Your task to perform on an android device: see sites visited before in the chrome app Image 0: 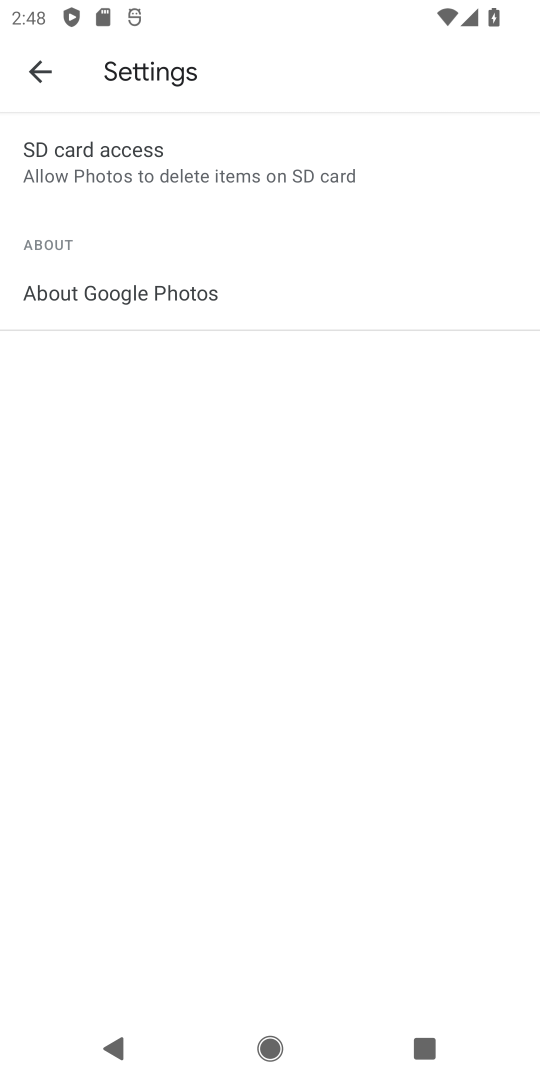
Step 0: press home button
Your task to perform on an android device: see sites visited before in the chrome app Image 1: 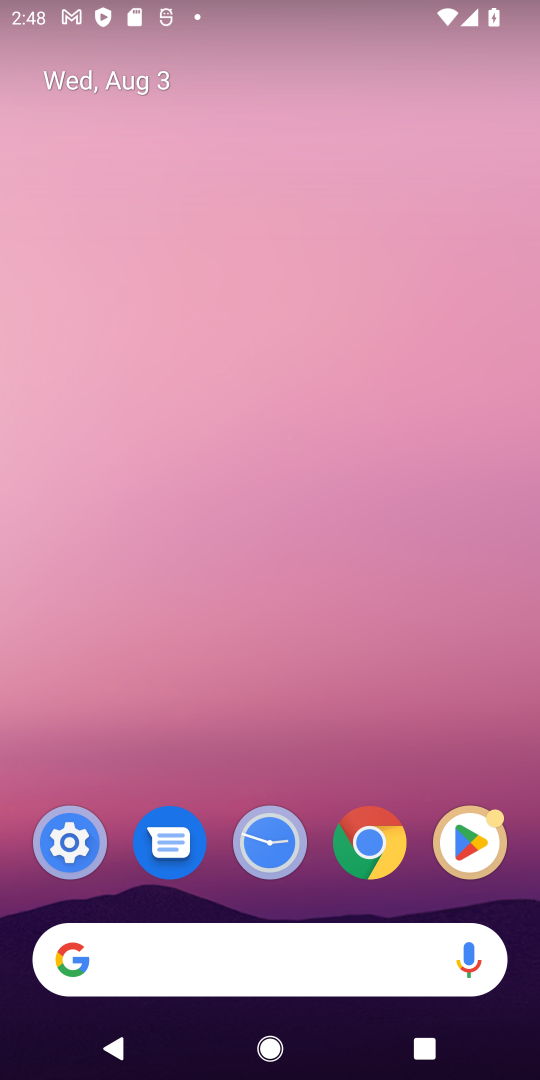
Step 1: click (373, 833)
Your task to perform on an android device: see sites visited before in the chrome app Image 2: 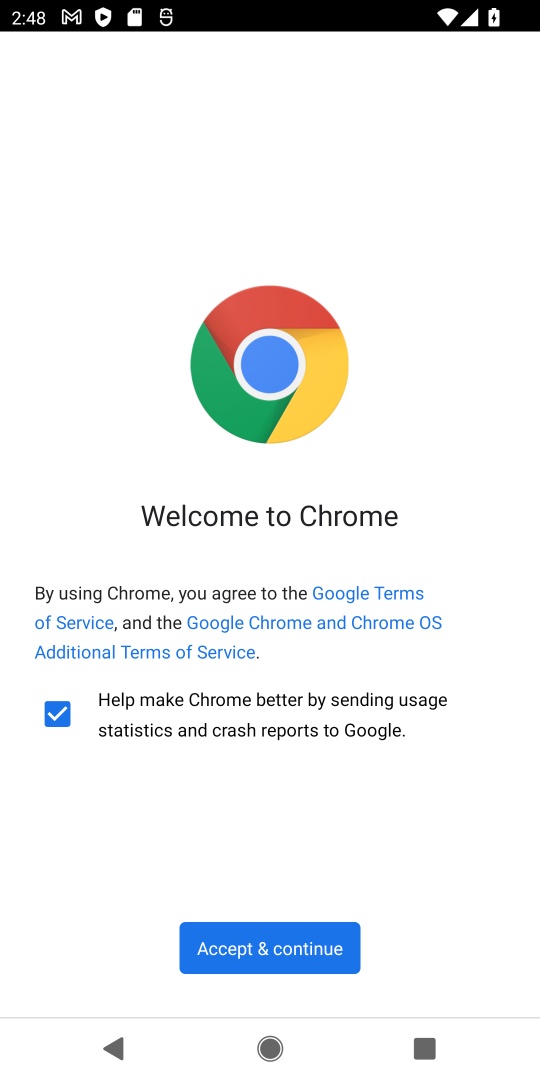
Step 2: click (309, 945)
Your task to perform on an android device: see sites visited before in the chrome app Image 3: 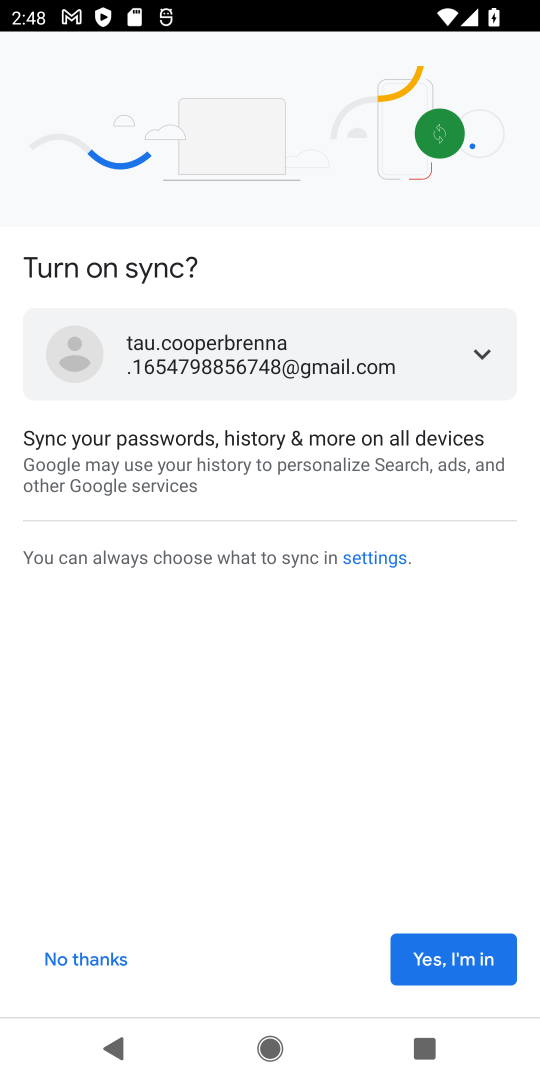
Step 3: click (435, 958)
Your task to perform on an android device: see sites visited before in the chrome app Image 4: 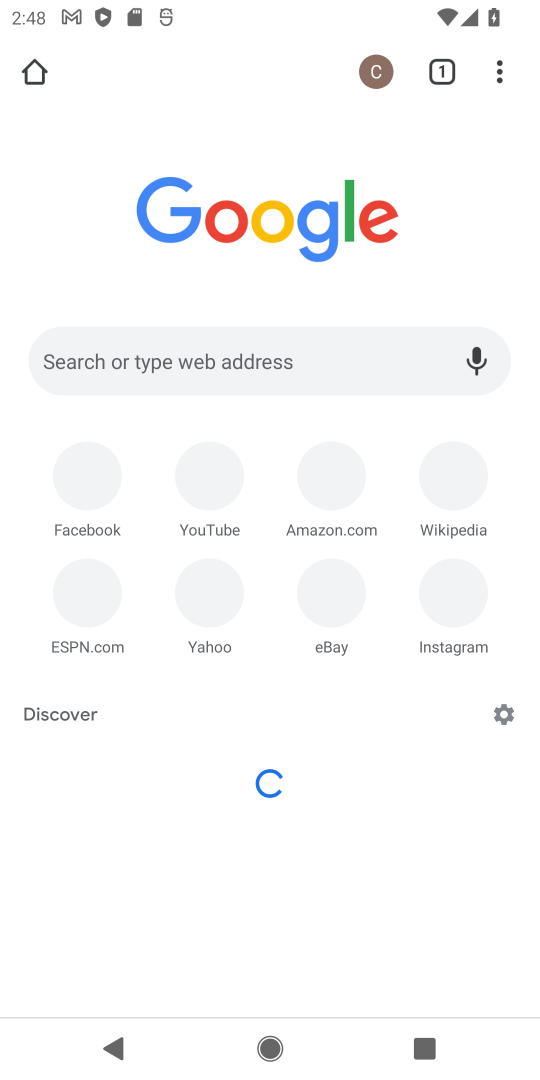
Step 4: click (494, 77)
Your task to perform on an android device: see sites visited before in the chrome app Image 5: 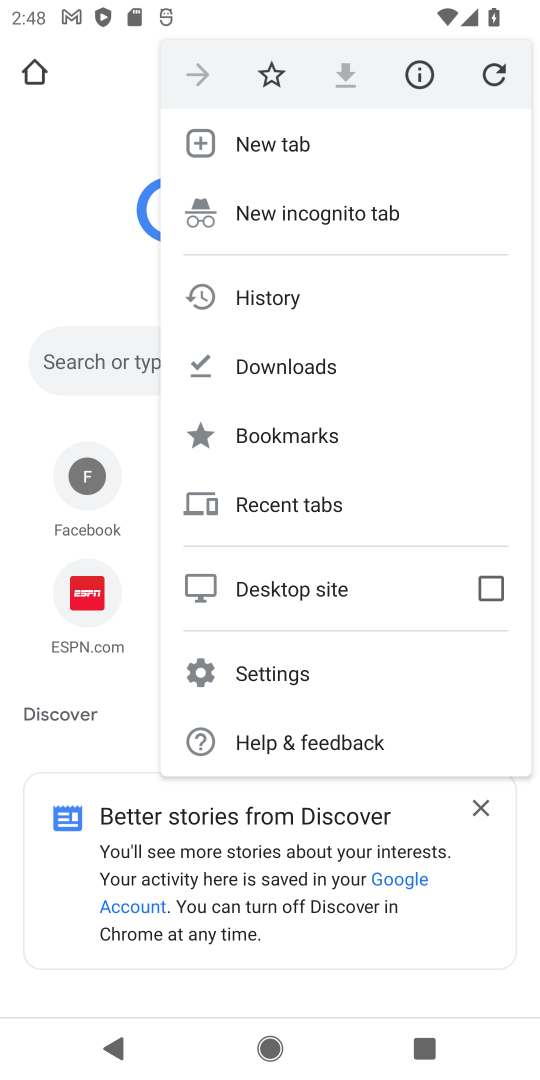
Step 5: click (296, 287)
Your task to perform on an android device: see sites visited before in the chrome app Image 6: 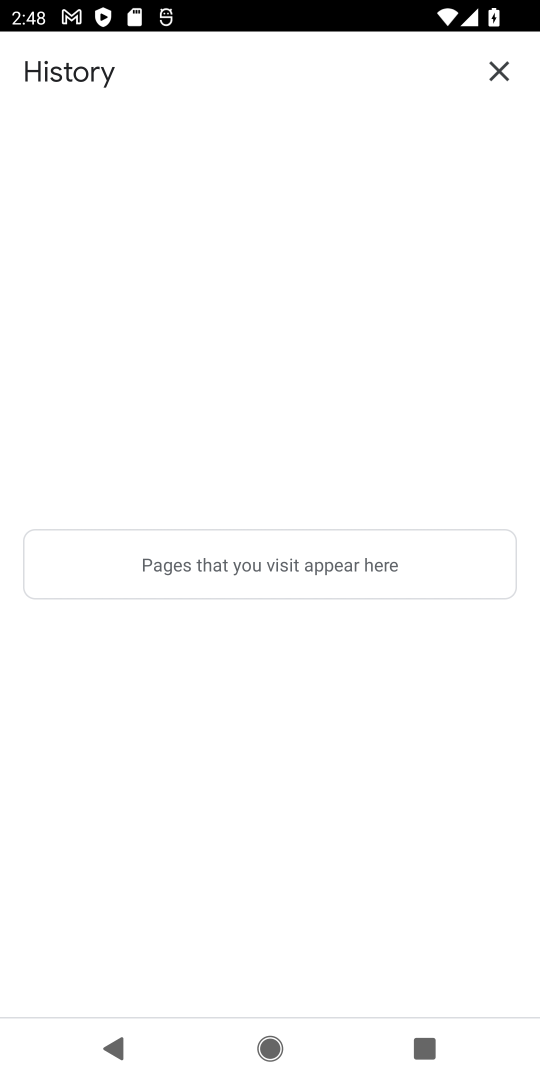
Step 6: click (400, 570)
Your task to perform on an android device: see sites visited before in the chrome app Image 7: 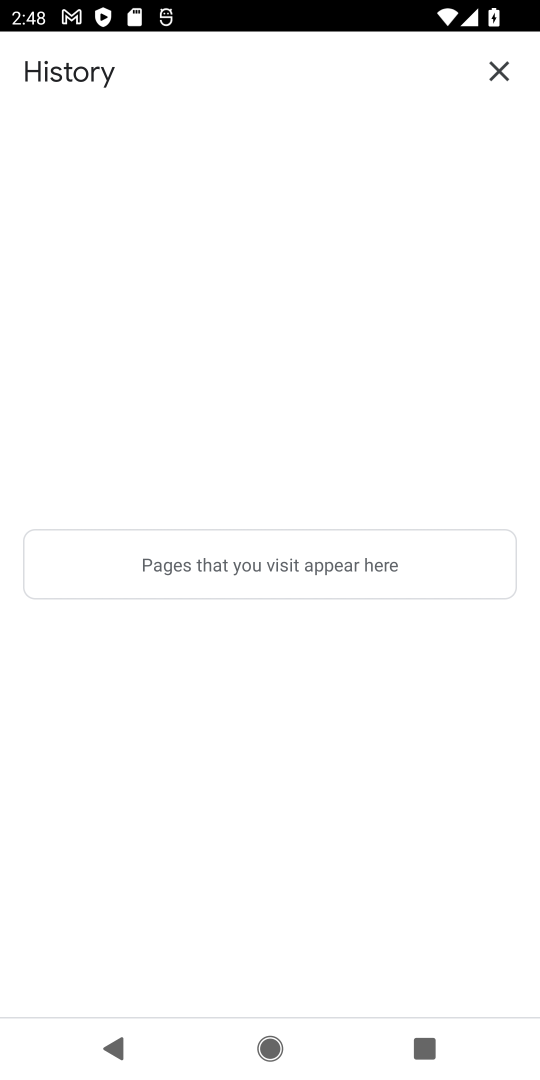
Step 7: task complete